Your task to perform on an android device: find photos in the google photos app Image 0: 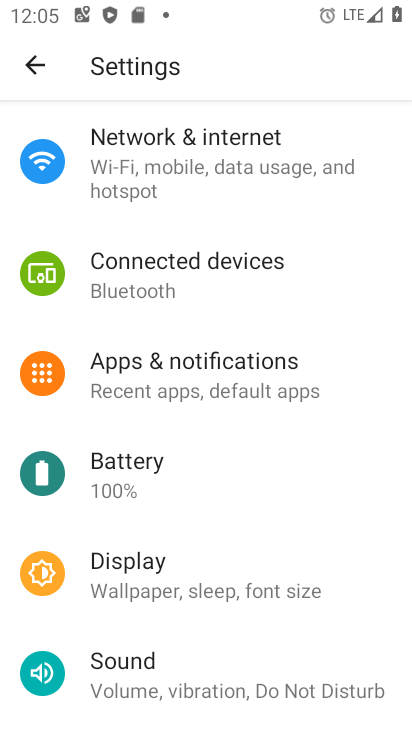
Step 0: drag from (135, 609) to (178, 349)
Your task to perform on an android device: find photos in the google photos app Image 1: 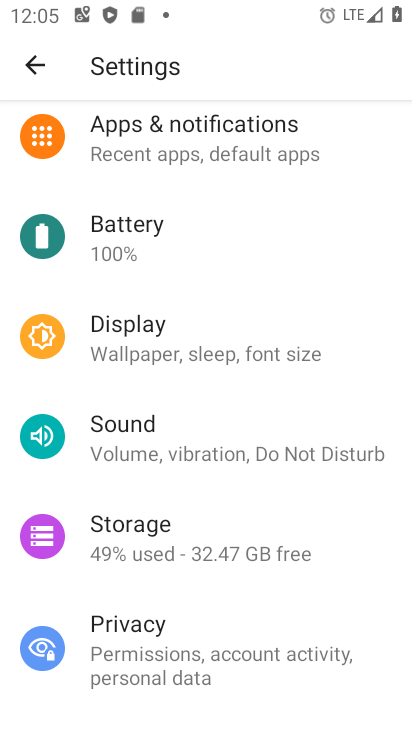
Step 1: press home button
Your task to perform on an android device: find photos in the google photos app Image 2: 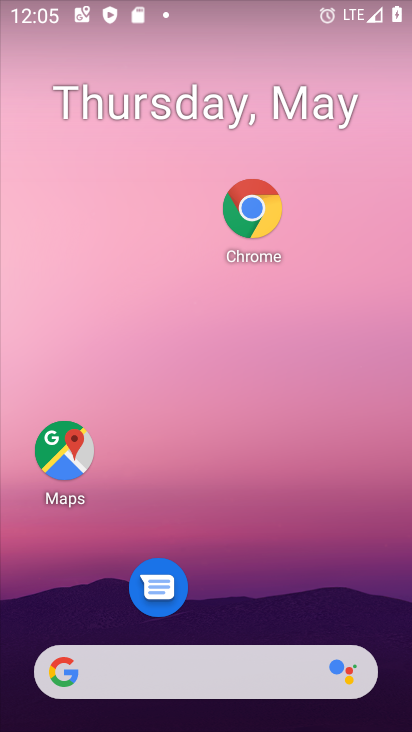
Step 2: drag from (244, 548) to (217, 273)
Your task to perform on an android device: find photos in the google photos app Image 3: 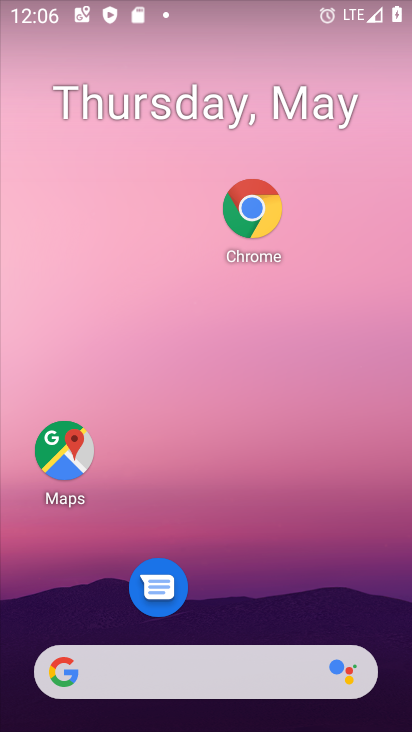
Step 3: drag from (221, 607) to (210, 16)
Your task to perform on an android device: find photos in the google photos app Image 4: 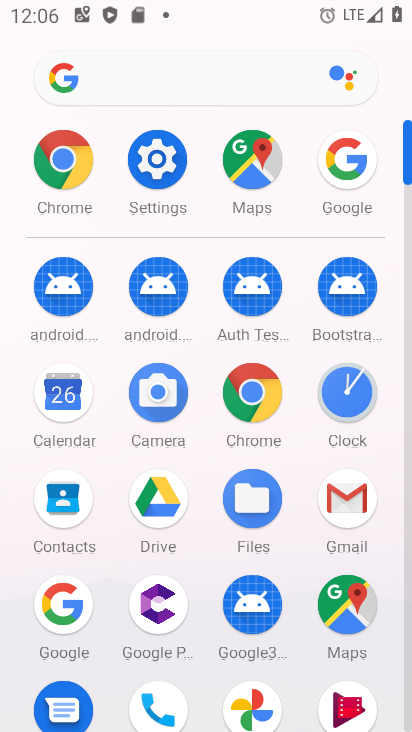
Step 4: click (250, 700)
Your task to perform on an android device: find photos in the google photos app Image 5: 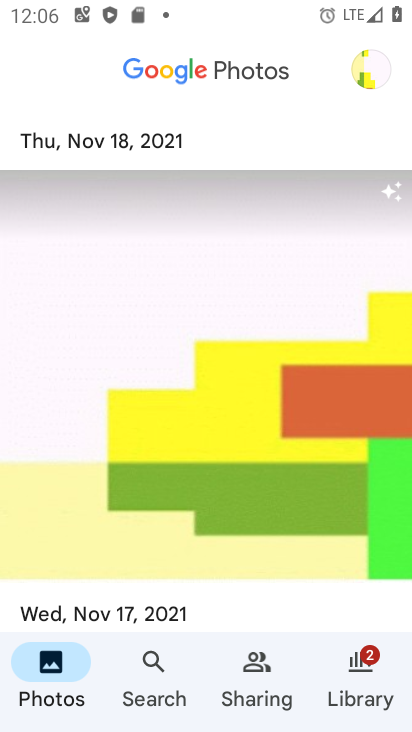
Step 5: task complete